Your task to perform on an android device: set the stopwatch Image 0: 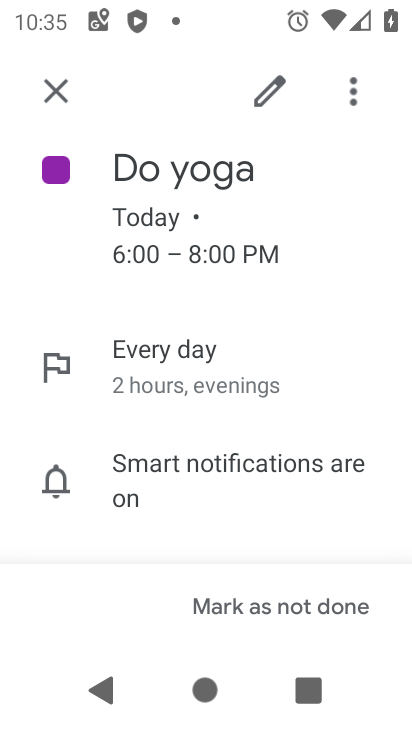
Step 0: press home button
Your task to perform on an android device: set the stopwatch Image 1: 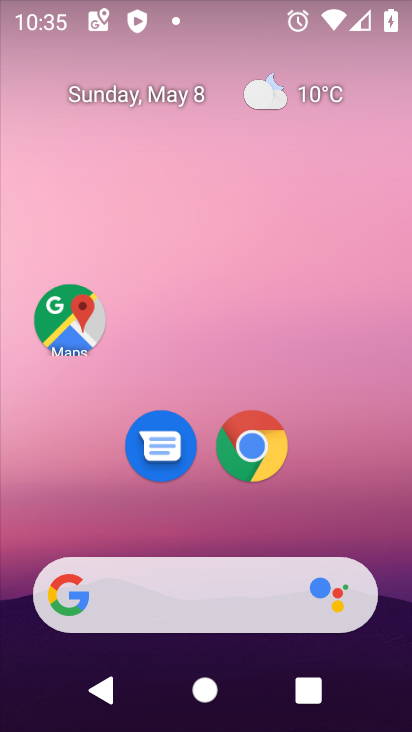
Step 1: drag from (364, 549) to (366, 11)
Your task to perform on an android device: set the stopwatch Image 2: 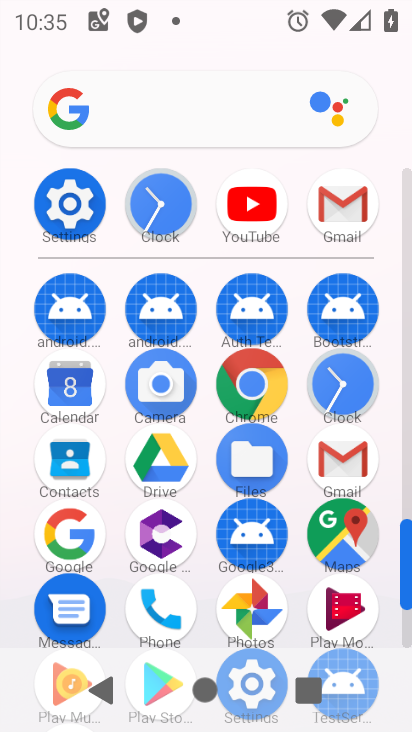
Step 2: click (154, 206)
Your task to perform on an android device: set the stopwatch Image 3: 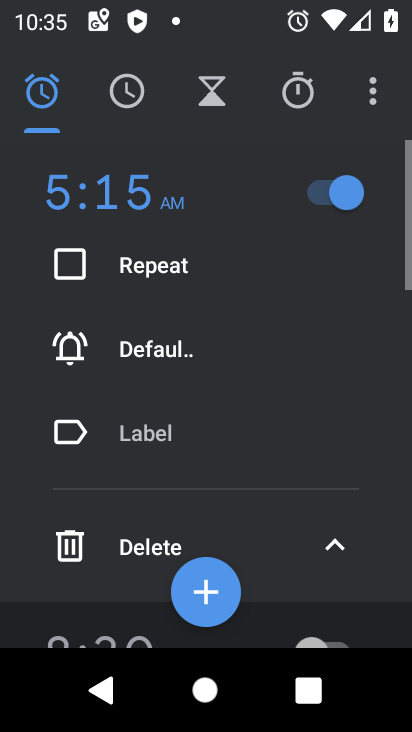
Step 3: click (291, 91)
Your task to perform on an android device: set the stopwatch Image 4: 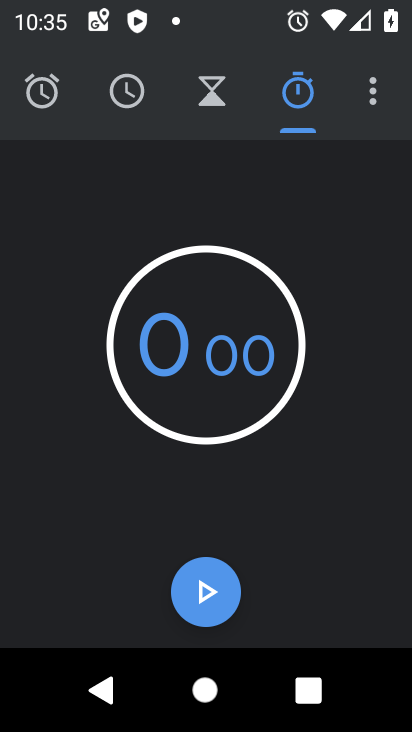
Step 4: click (199, 606)
Your task to perform on an android device: set the stopwatch Image 5: 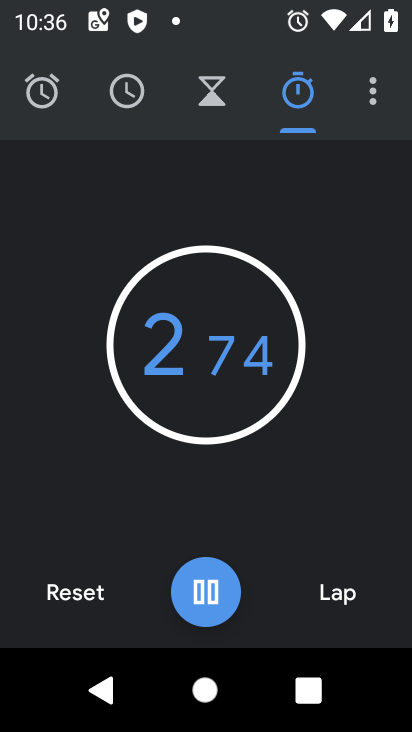
Step 5: click (201, 600)
Your task to perform on an android device: set the stopwatch Image 6: 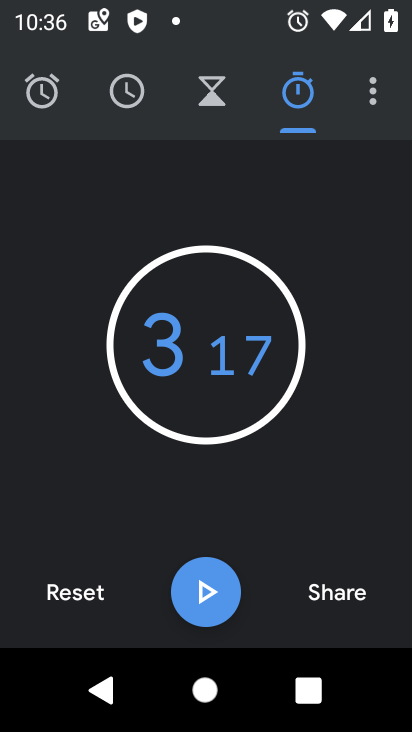
Step 6: task complete